Your task to perform on an android device: Open the web browser Image 0: 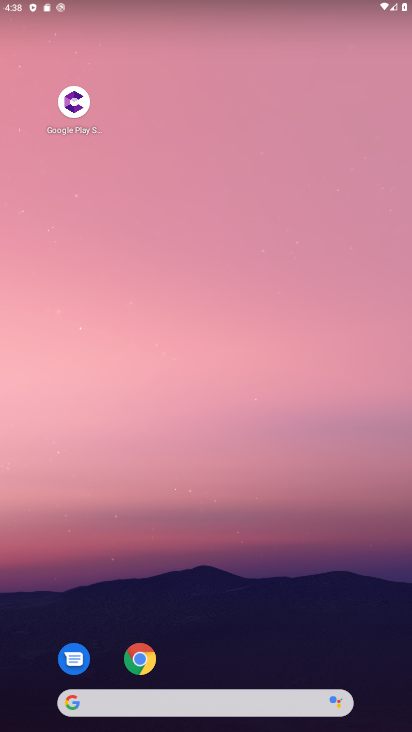
Step 0: drag from (245, 540) to (193, 4)
Your task to perform on an android device: Open the web browser Image 1: 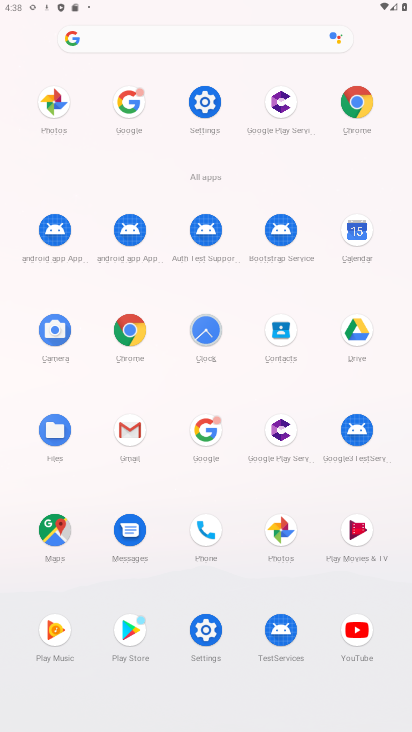
Step 1: click (350, 105)
Your task to perform on an android device: Open the web browser Image 2: 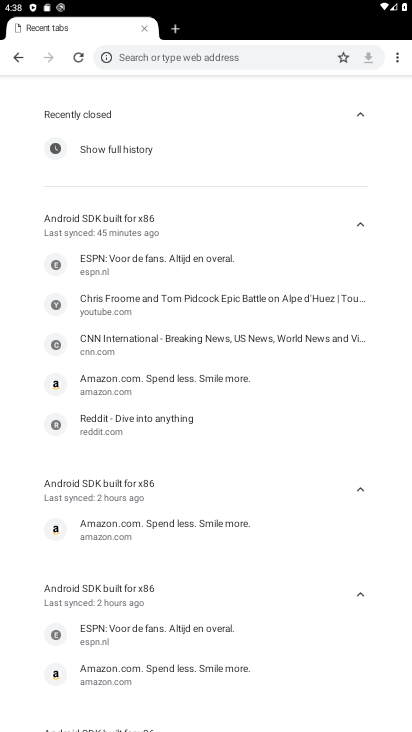
Step 2: task complete